Your task to perform on an android device: turn off priority inbox in the gmail app Image 0: 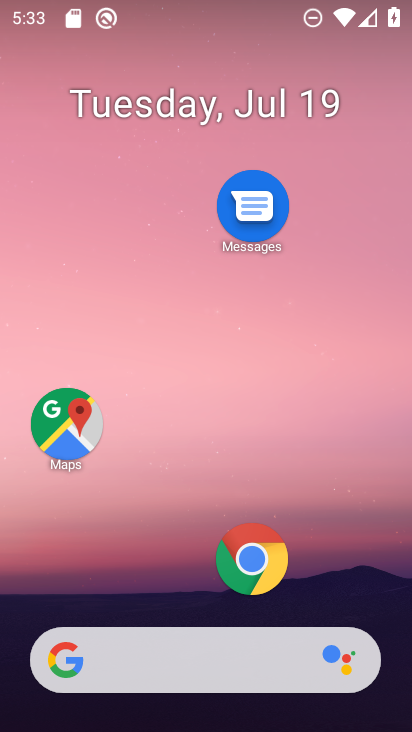
Step 0: drag from (131, 579) to (216, 35)
Your task to perform on an android device: turn off priority inbox in the gmail app Image 1: 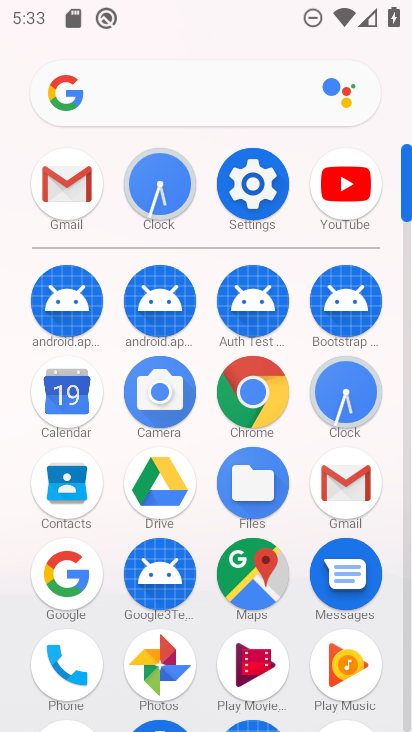
Step 1: click (65, 184)
Your task to perform on an android device: turn off priority inbox in the gmail app Image 2: 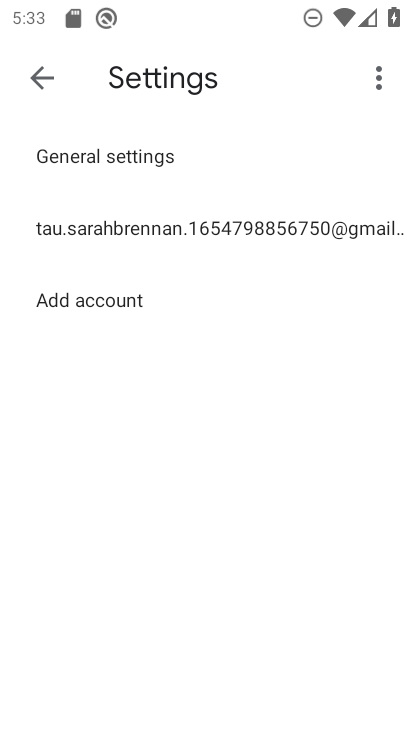
Step 2: click (133, 229)
Your task to perform on an android device: turn off priority inbox in the gmail app Image 3: 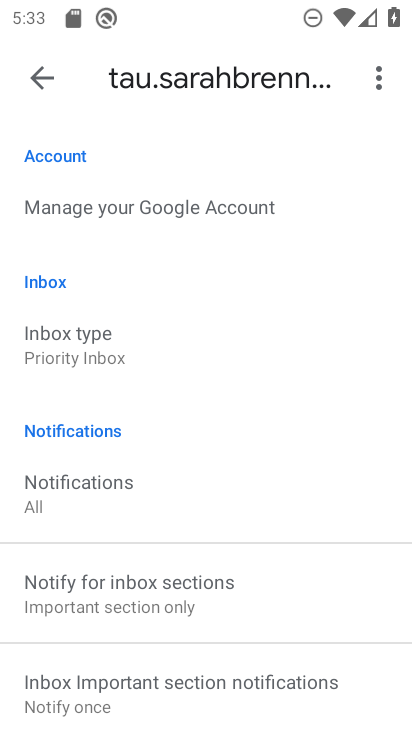
Step 3: click (79, 342)
Your task to perform on an android device: turn off priority inbox in the gmail app Image 4: 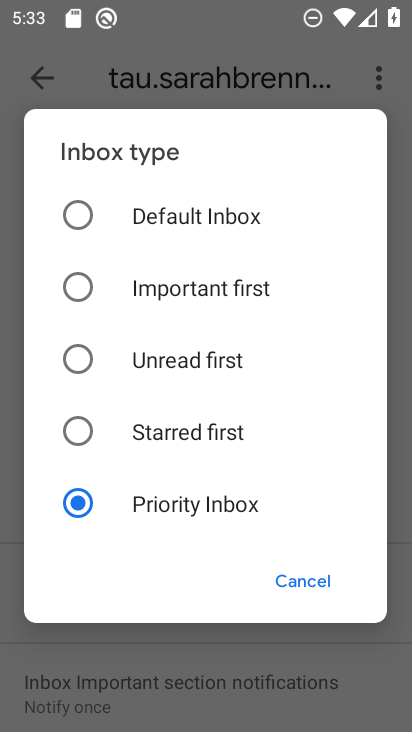
Step 4: click (83, 219)
Your task to perform on an android device: turn off priority inbox in the gmail app Image 5: 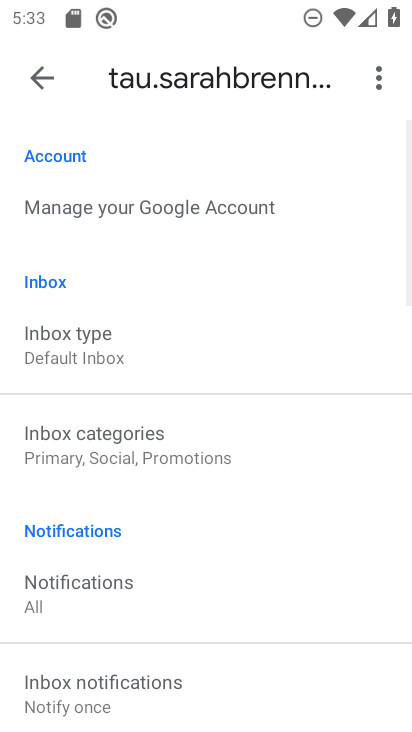
Step 5: task complete